Your task to perform on an android device: Open settings Image 0: 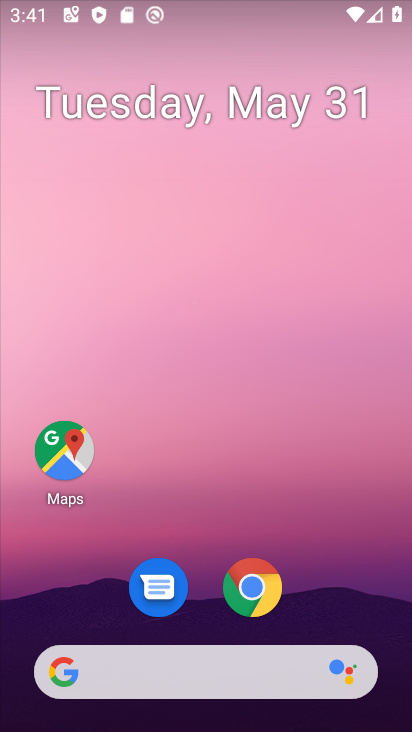
Step 0: drag from (319, 632) to (318, 46)
Your task to perform on an android device: Open settings Image 1: 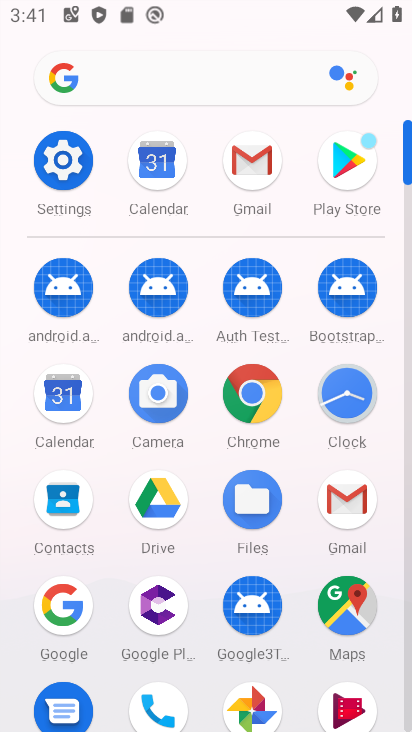
Step 1: click (67, 162)
Your task to perform on an android device: Open settings Image 2: 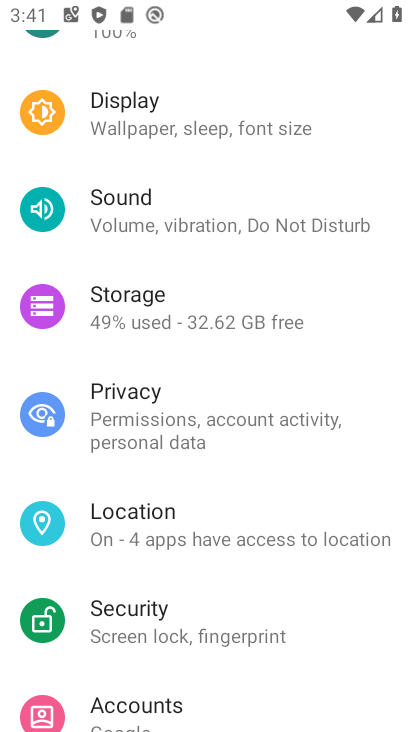
Step 2: task complete